Your task to perform on an android device: check storage Image 0: 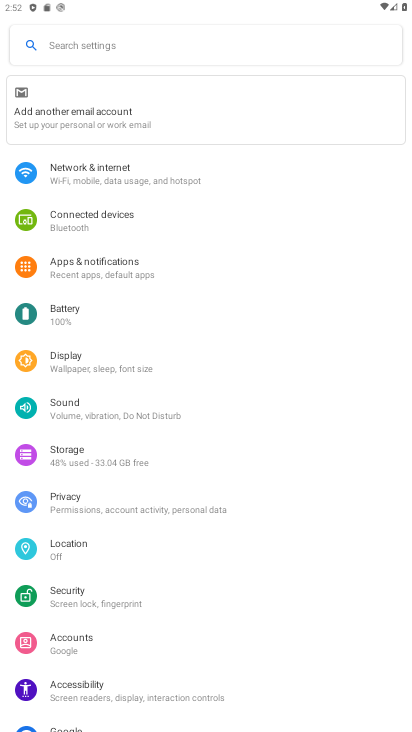
Step 0: drag from (140, 611) to (241, 342)
Your task to perform on an android device: check storage Image 1: 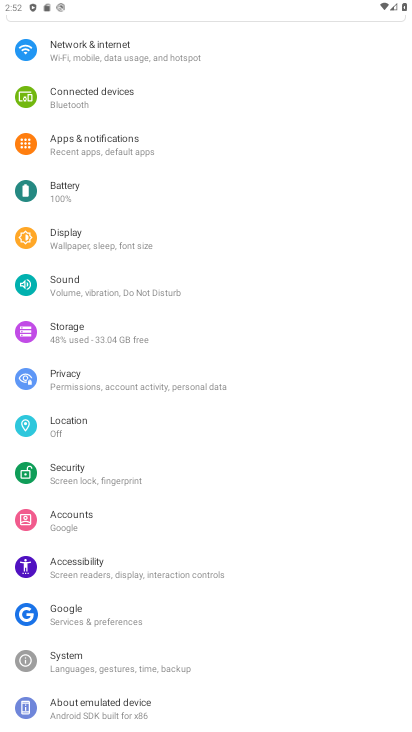
Step 1: click (91, 331)
Your task to perform on an android device: check storage Image 2: 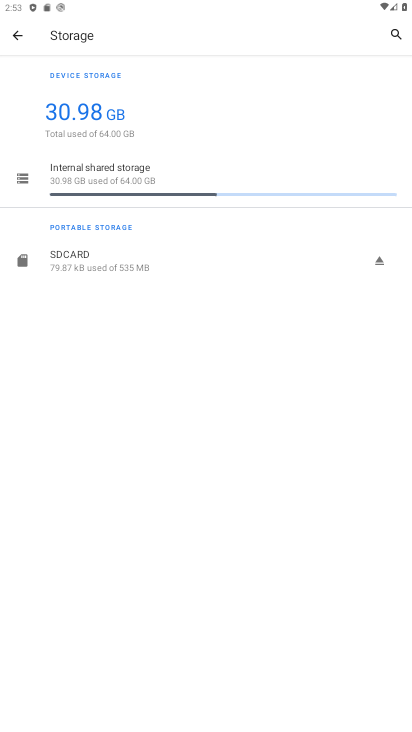
Step 2: task complete